Your task to perform on an android device: turn on showing notifications on the lock screen Image 0: 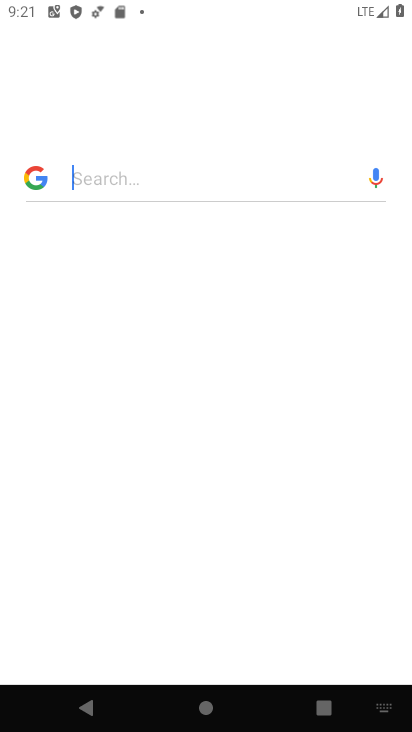
Step 0: drag from (265, 718) to (266, 661)
Your task to perform on an android device: turn on showing notifications on the lock screen Image 1: 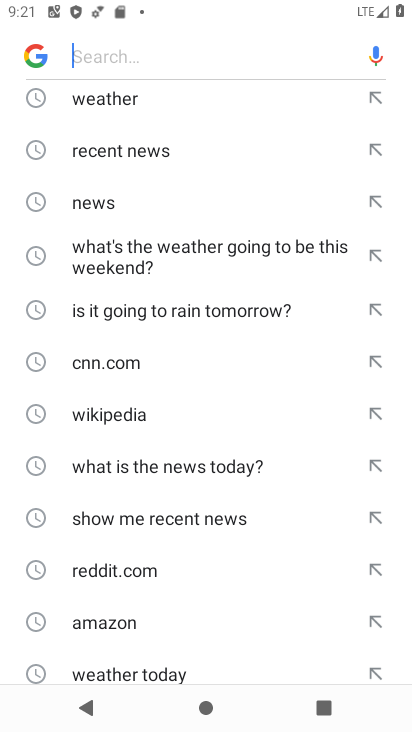
Step 1: press home button
Your task to perform on an android device: turn on showing notifications on the lock screen Image 2: 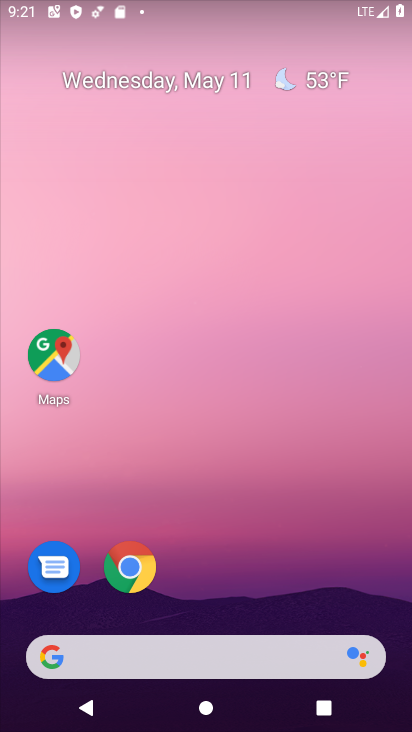
Step 2: drag from (239, 714) to (316, 47)
Your task to perform on an android device: turn on showing notifications on the lock screen Image 3: 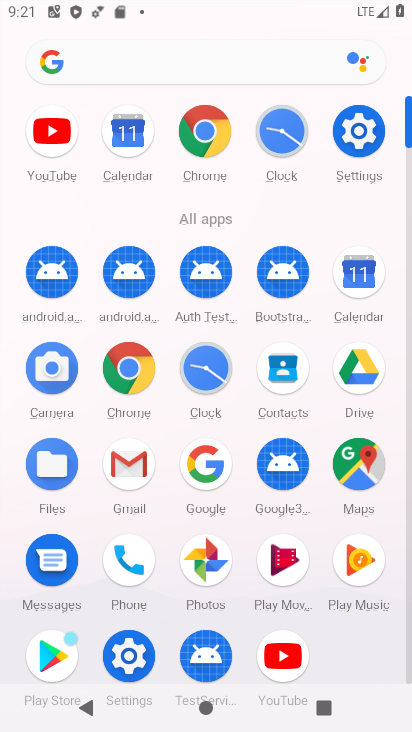
Step 3: click (356, 125)
Your task to perform on an android device: turn on showing notifications on the lock screen Image 4: 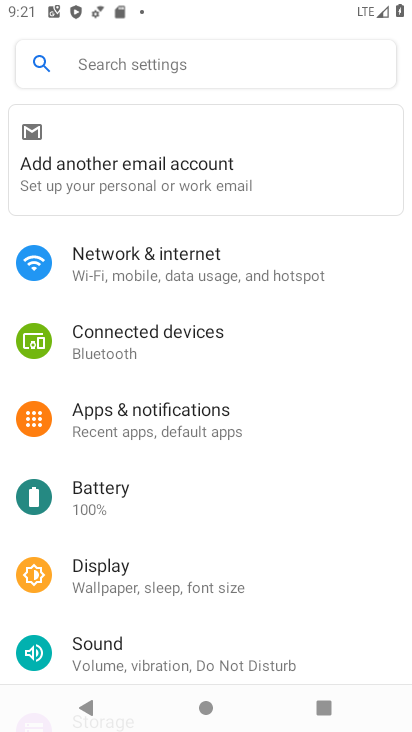
Step 4: click (177, 418)
Your task to perform on an android device: turn on showing notifications on the lock screen Image 5: 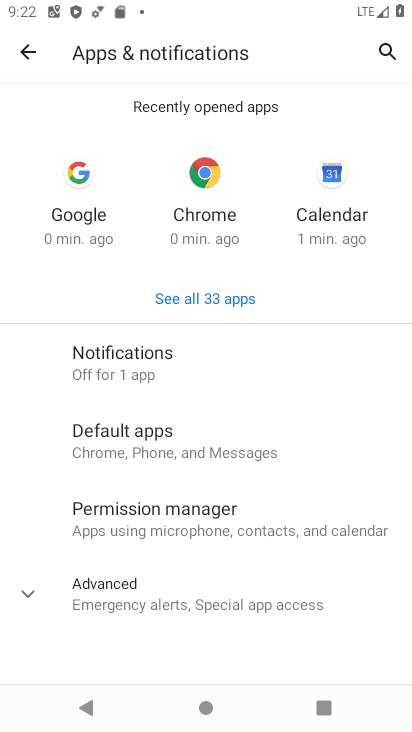
Step 5: click (240, 359)
Your task to perform on an android device: turn on showing notifications on the lock screen Image 6: 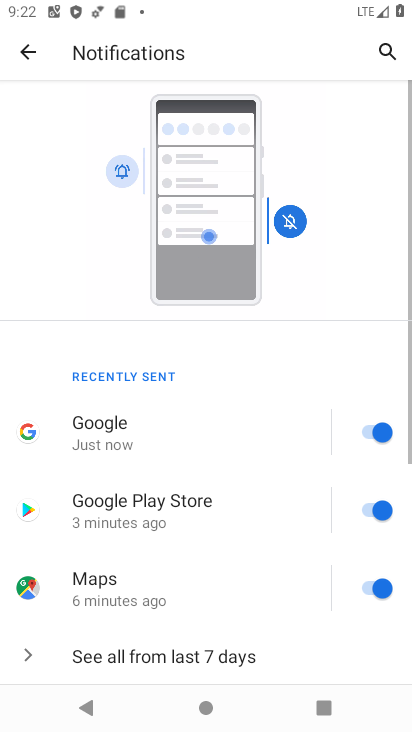
Step 6: drag from (211, 589) to (194, 163)
Your task to perform on an android device: turn on showing notifications on the lock screen Image 7: 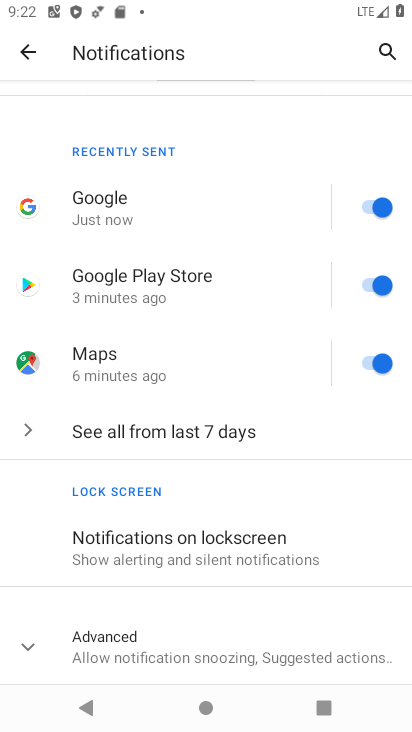
Step 7: click (170, 552)
Your task to perform on an android device: turn on showing notifications on the lock screen Image 8: 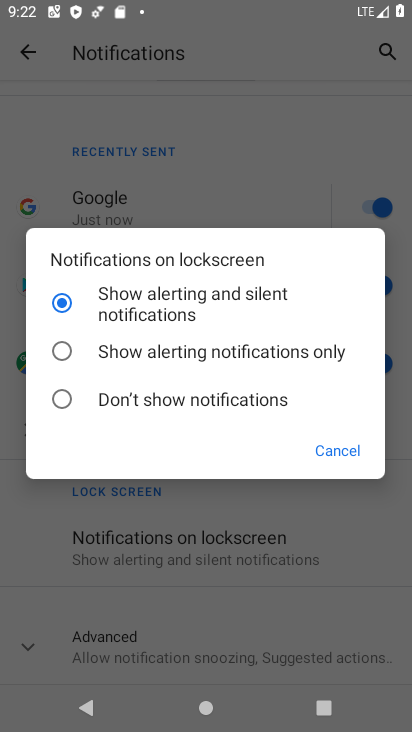
Step 8: task complete